Your task to perform on an android device: choose inbox layout in the gmail app Image 0: 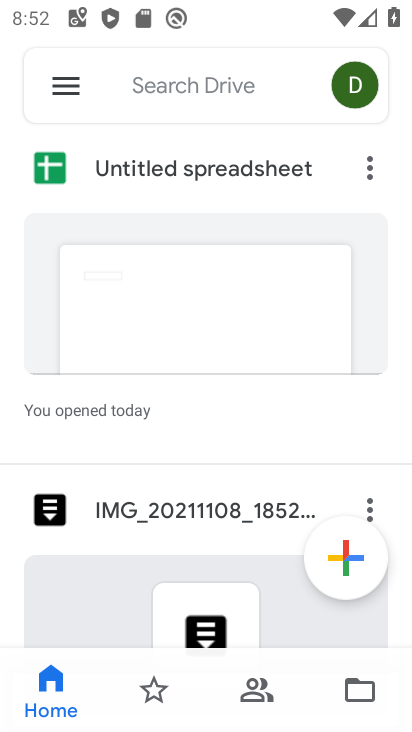
Step 0: press home button
Your task to perform on an android device: choose inbox layout in the gmail app Image 1: 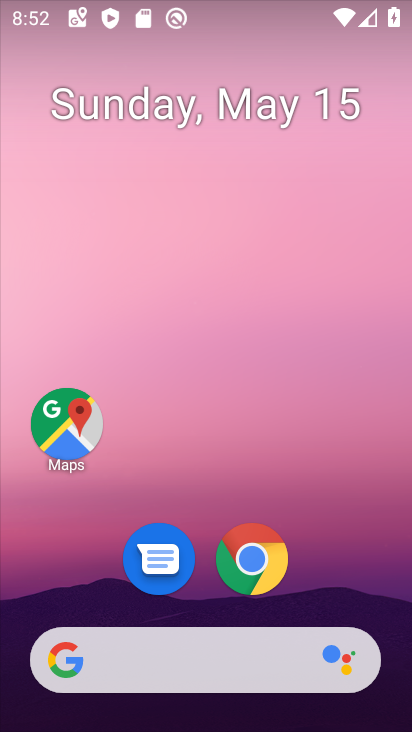
Step 1: drag from (338, 590) to (343, 58)
Your task to perform on an android device: choose inbox layout in the gmail app Image 2: 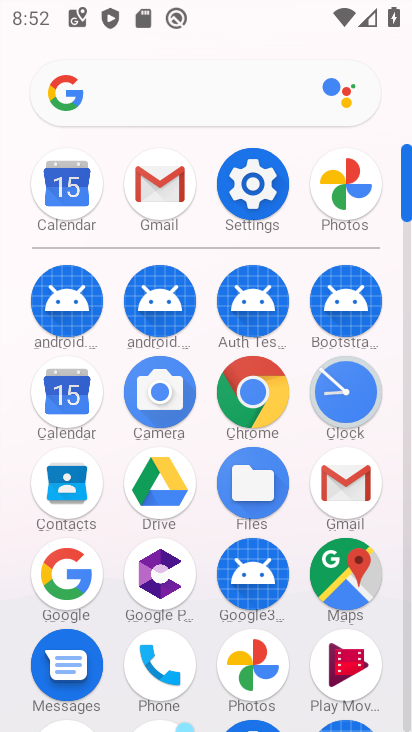
Step 2: click (344, 482)
Your task to perform on an android device: choose inbox layout in the gmail app Image 3: 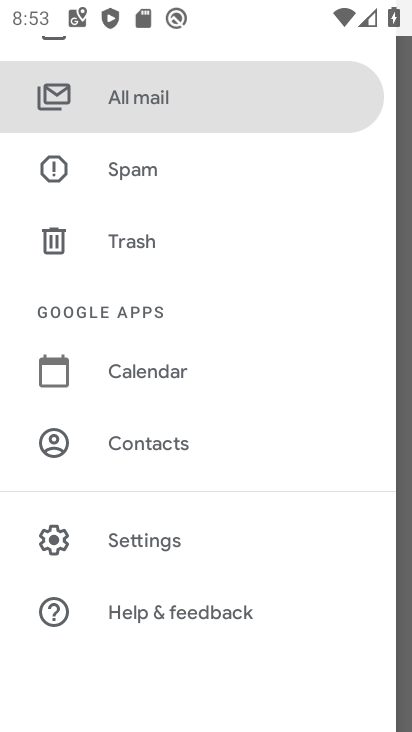
Step 3: drag from (237, 278) to (234, 437)
Your task to perform on an android device: choose inbox layout in the gmail app Image 4: 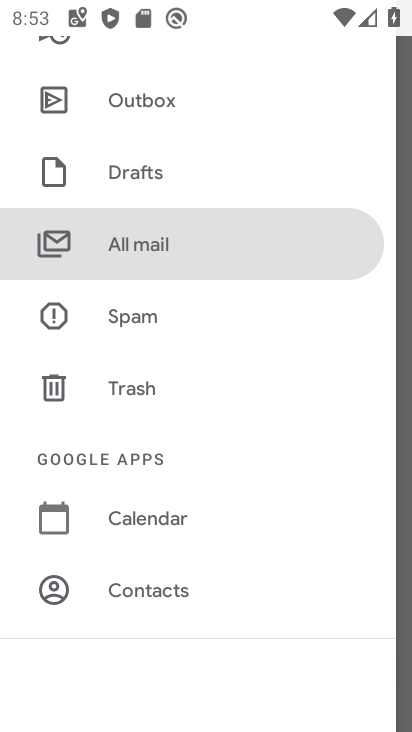
Step 4: drag from (229, 220) to (234, 614)
Your task to perform on an android device: choose inbox layout in the gmail app Image 5: 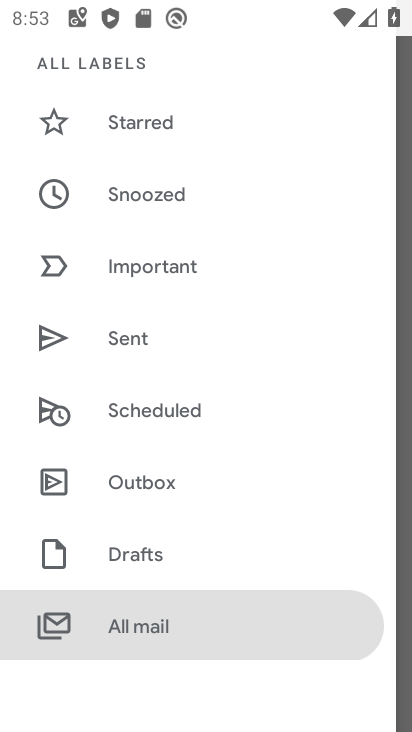
Step 5: drag from (197, 164) to (178, 421)
Your task to perform on an android device: choose inbox layout in the gmail app Image 6: 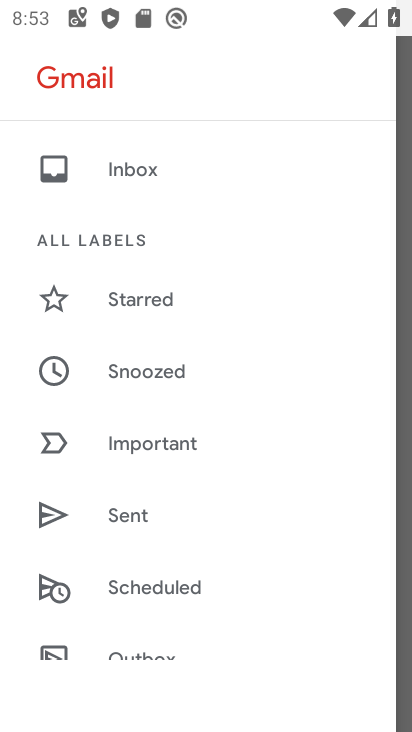
Step 6: click (164, 174)
Your task to perform on an android device: choose inbox layout in the gmail app Image 7: 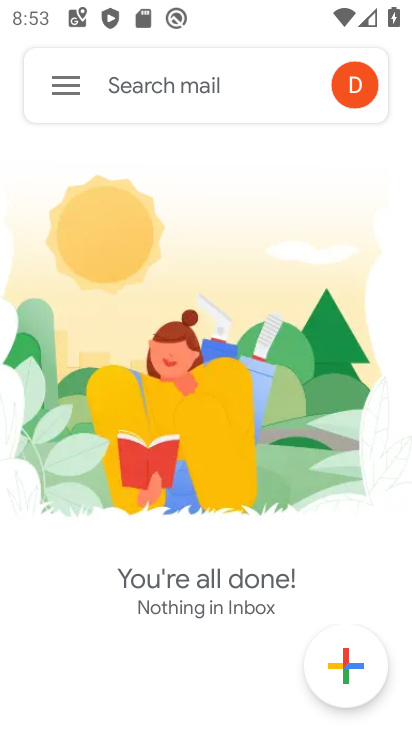
Step 7: task complete